Your task to perform on an android device: Set the phone to "Do not disturb". Image 0: 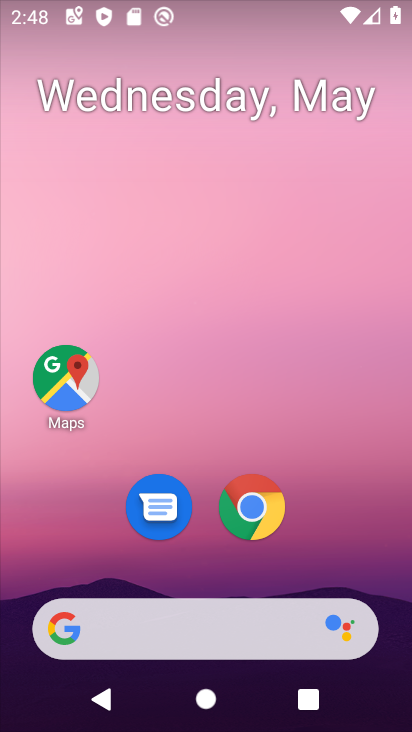
Step 0: drag from (225, 547) to (45, 32)
Your task to perform on an android device: Set the phone to "Do not disturb". Image 1: 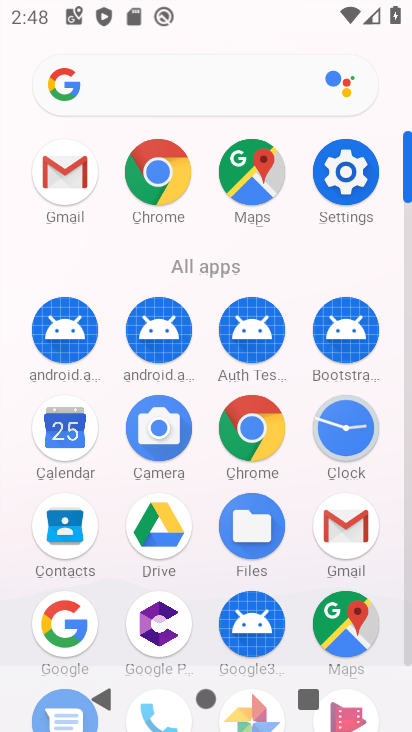
Step 1: press home button
Your task to perform on an android device: Set the phone to "Do not disturb". Image 2: 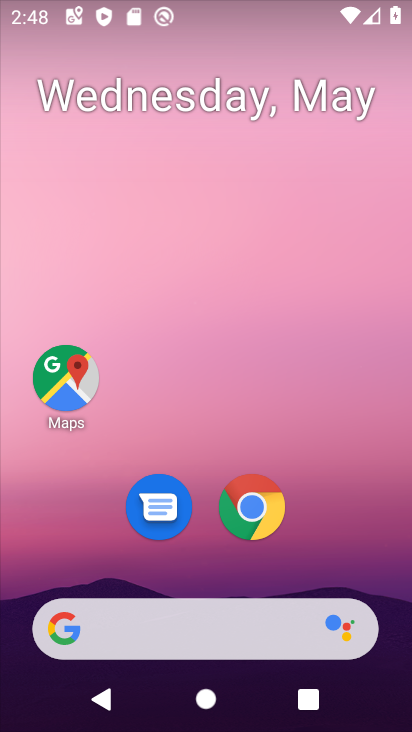
Step 2: drag from (204, 551) to (256, 9)
Your task to perform on an android device: Set the phone to "Do not disturb". Image 3: 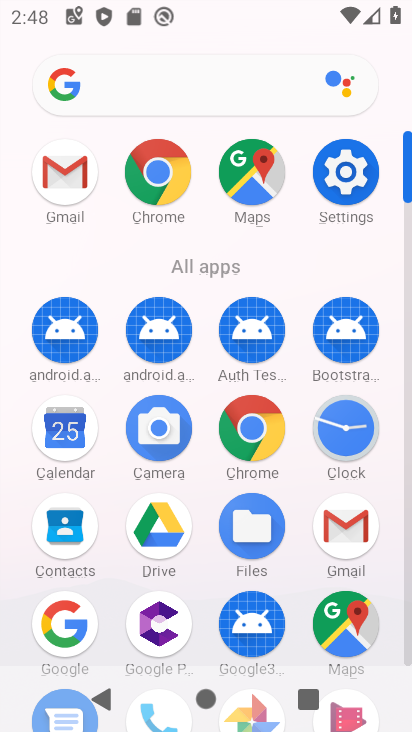
Step 3: click (344, 212)
Your task to perform on an android device: Set the phone to "Do not disturb". Image 4: 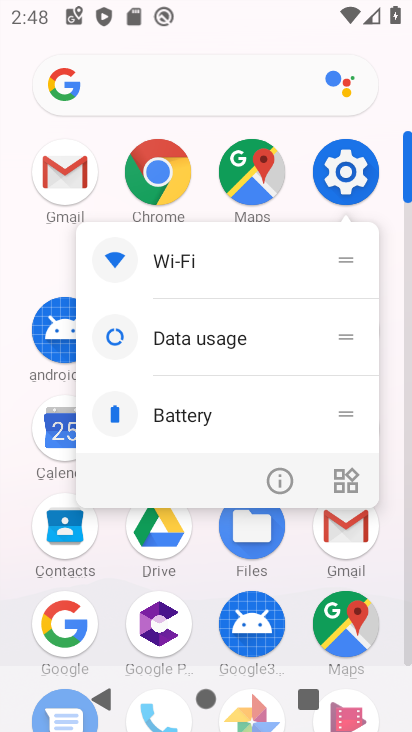
Step 4: click (355, 164)
Your task to perform on an android device: Set the phone to "Do not disturb". Image 5: 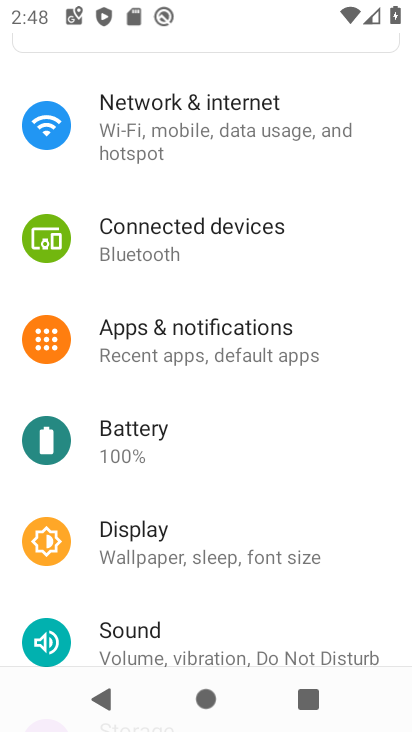
Step 5: click (152, 641)
Your task to perform on an android device: Set the phone to "Do not disturb". Image 6: 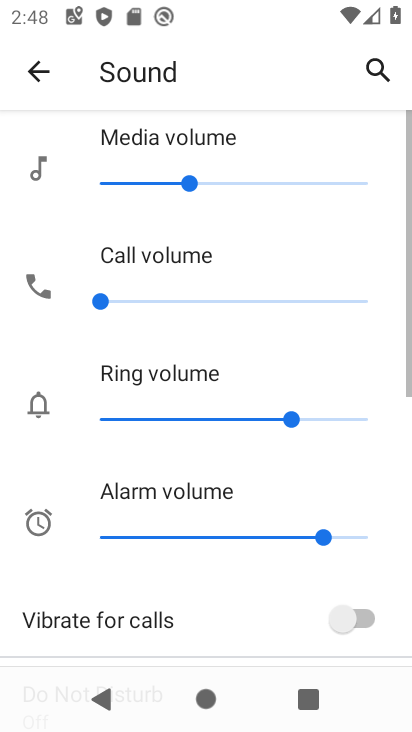
Step 6: drag from (234, 575) to (296, 108)
Your task to perform on an android device: Set the phone to "Do not disturb". Image 7: 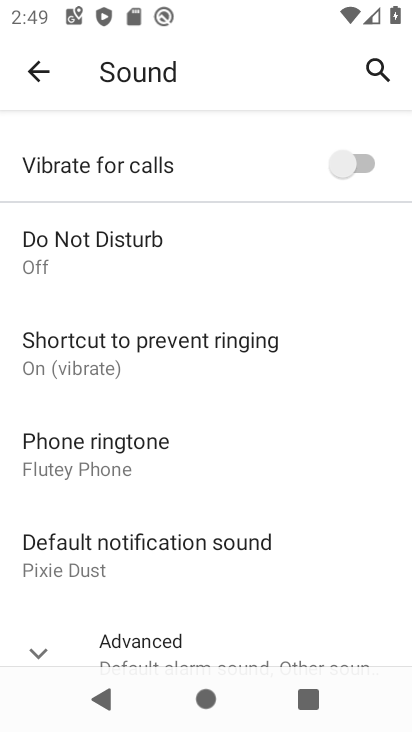
Step 7: click (111, 263)
Your task to perform on an android device: Set the phone to "Do not disturb". Image 8: 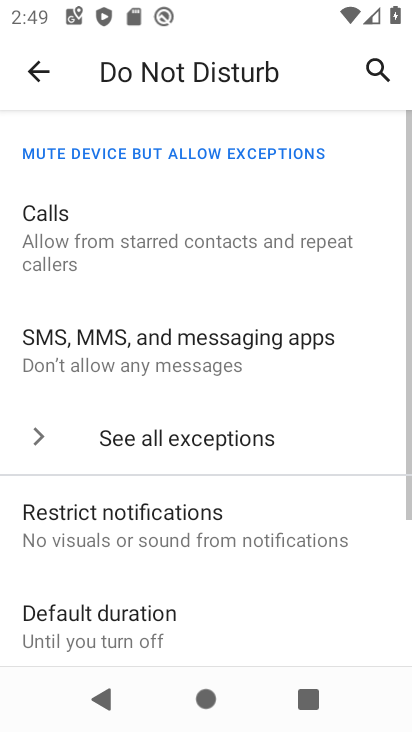
Step 8: drag from (197, 497) to (233, 123)
Your task to perform on an android device: Set the phone to "Do not disturb". Image 9: 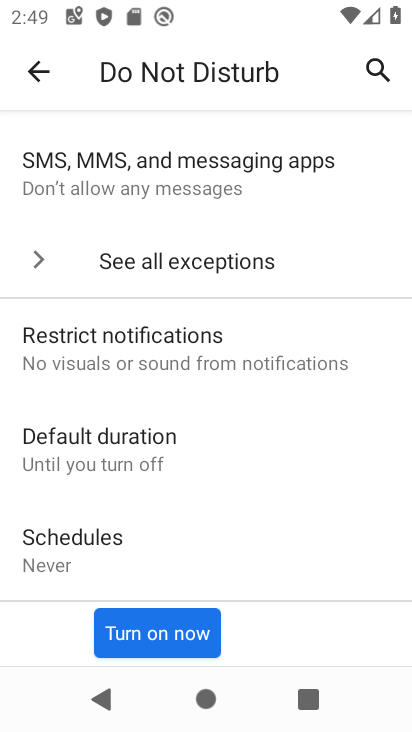
Step 9: click (152, 628)
Your task to perform on an android device: Set the phone to "Do not disturb". Image 10: 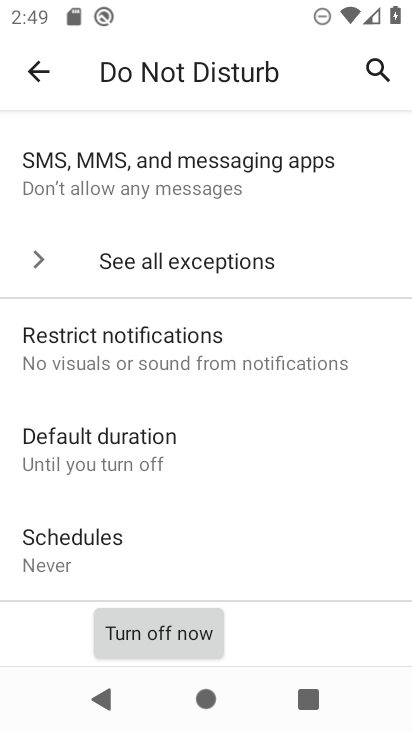
Step 10: task complete